Your task to perform on an android device: add a contact Image 0: 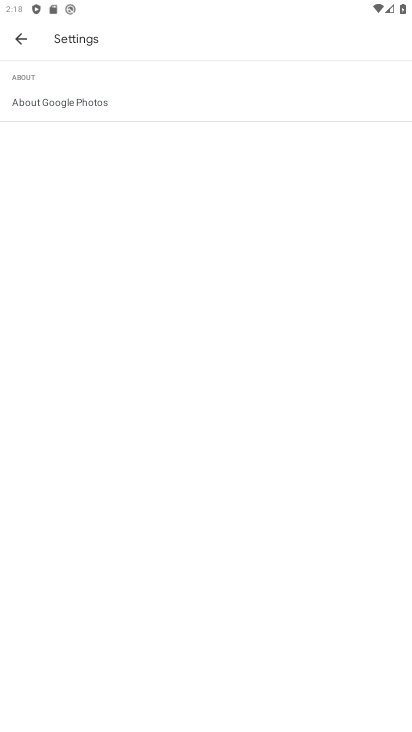
Step 0: press home button
Your task to perform on an android device: add a contact Image 1: 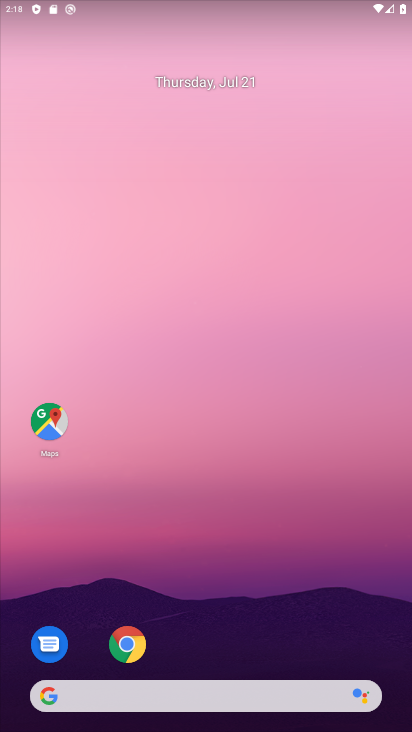
Step 1: drag from (335, 614) to (234, 173)
Your task to perform on an android device: add a contact Image 2: 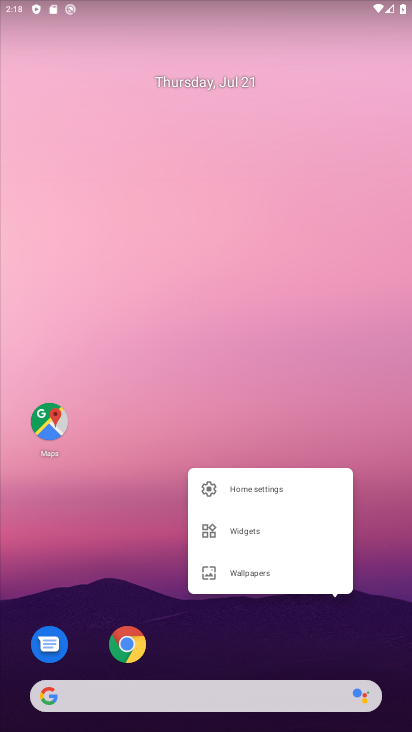
Step 2: drag from (387, 652) to (263, 237)
Your task to perform on an android device: add a contact Image 3: 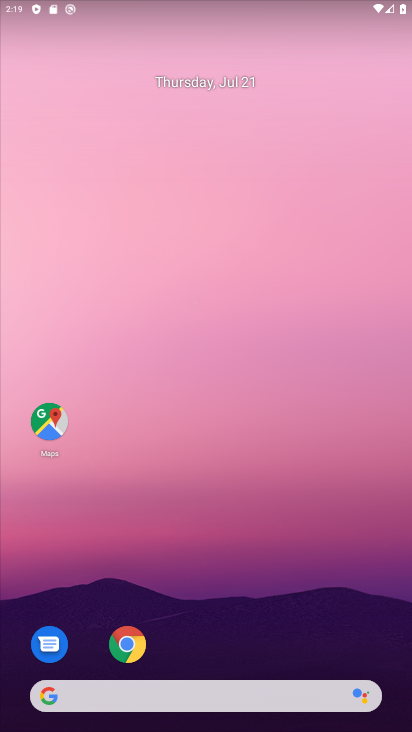
Step 3: drag from (243, 662) to (362, 22)
Your task to perform on an android device: add a contact Image 4: 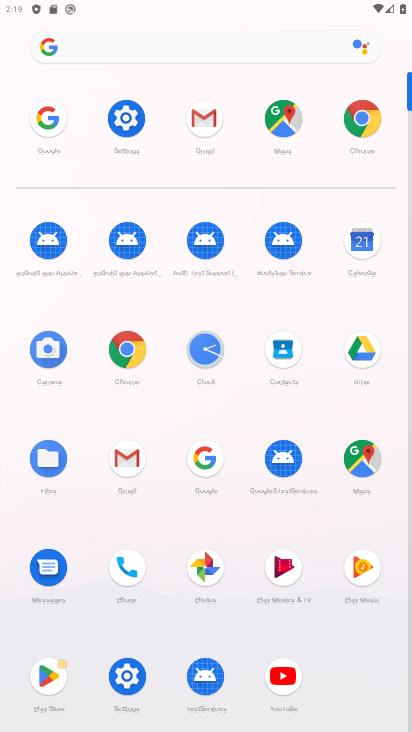
Step 4: click (286, 348)
Your task to perform on an android device: add a contact Image 5: 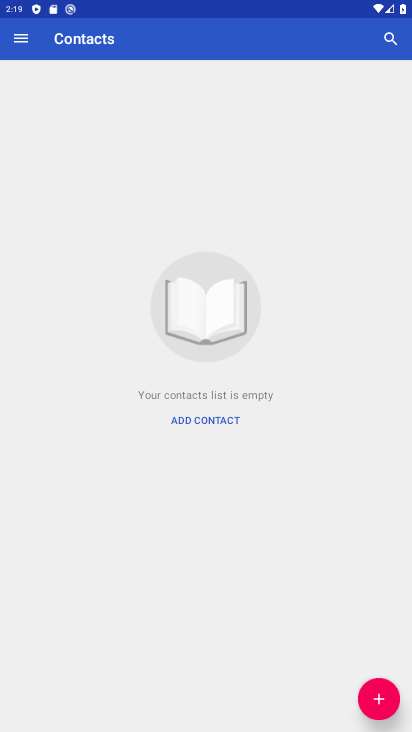
Step 5: click (387, 692)
Your task to perform on an android device: add a contact Image 6: 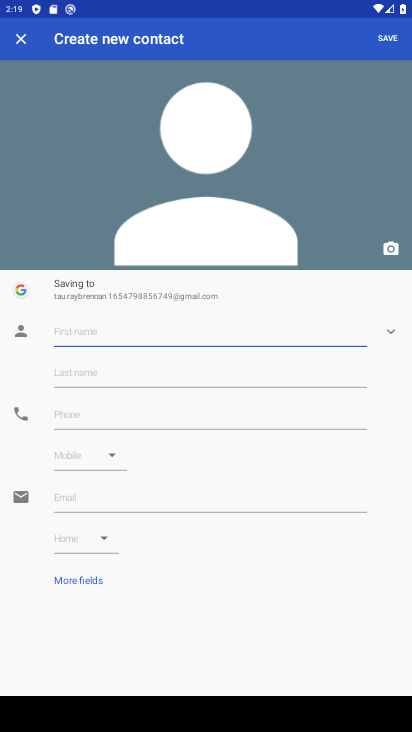
Step 6: type "vghvgv"
Your task to perform on an android device: add a contact Image 7: 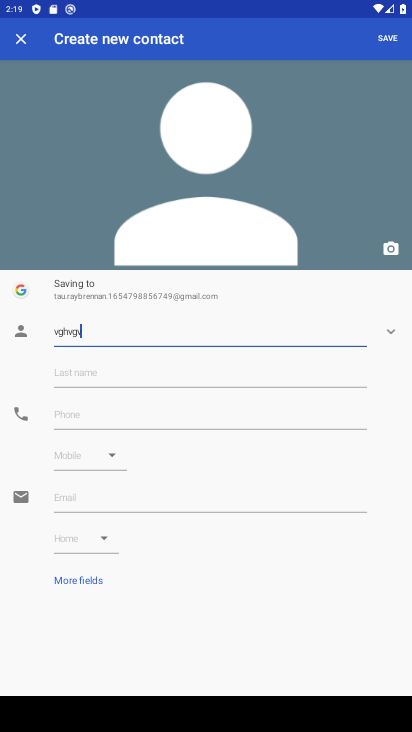
Step 7: click (286, 413)
Your task to perform on an android device: add a contact Image 8: 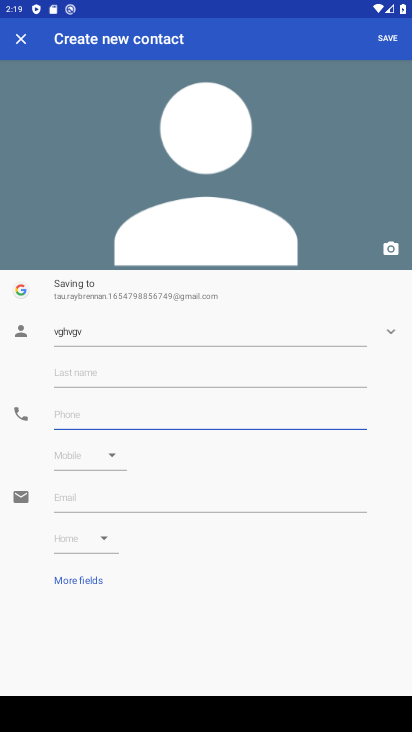
Step 8: type "t66688"
Your task to perform on an android device: add a contact Image 9: 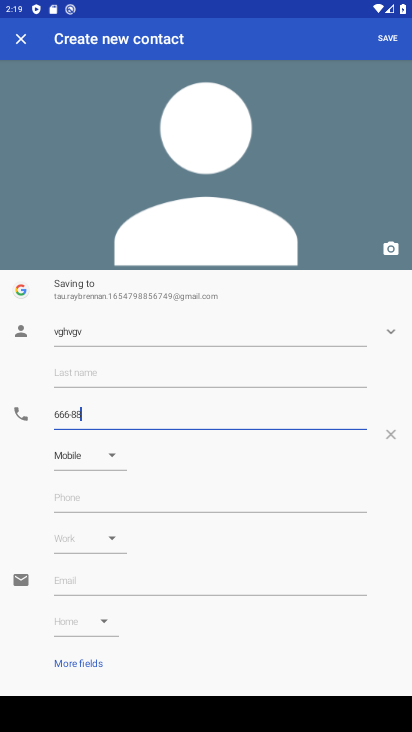
Step 9: click (385, 47)
Your task to perform on an android device: add a contact Image 10: 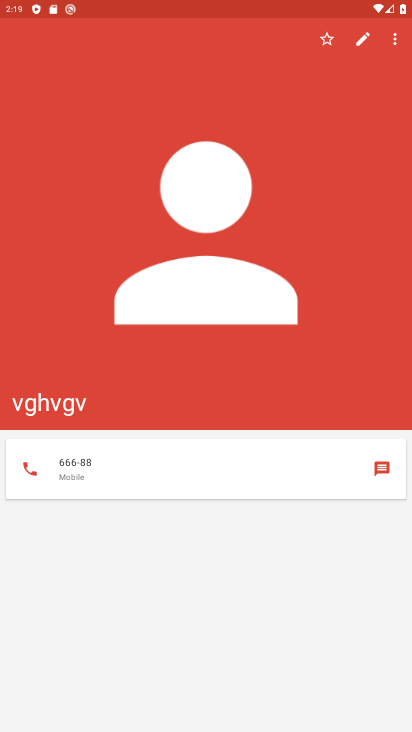
Step 10: task complete